Your task to perform on an android device: open device folders in google photos Image 0: 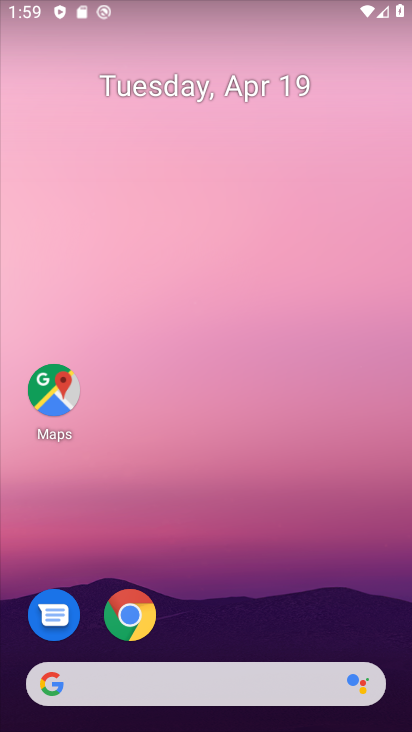
Step 0: drag from (182, 581) to (219, 164)
Your task to perform on an android device: open device folders in google photos Image 1: 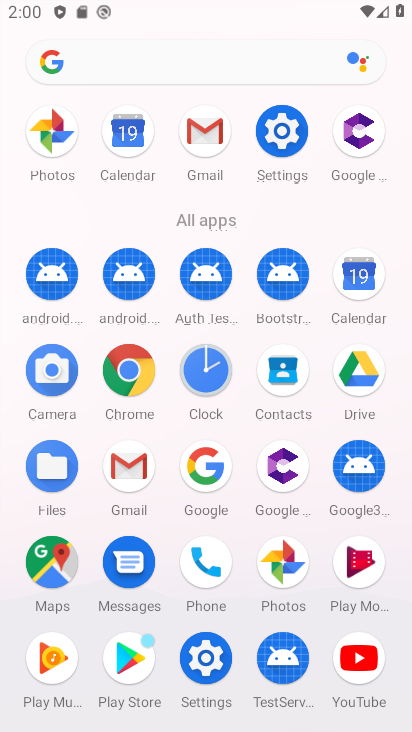
Step 1: click (279, 564)
Your task to perform on an android device: open device folders in google photos Image 2: 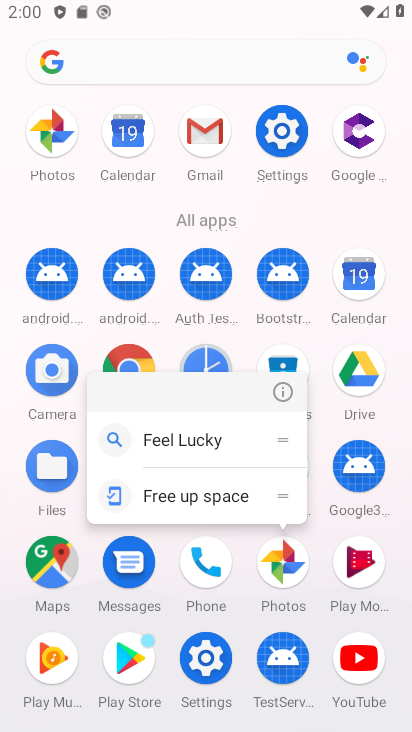
Step 2: click (287, 389)
Your task to perform on an android device: open device folders in google photos Image 3: 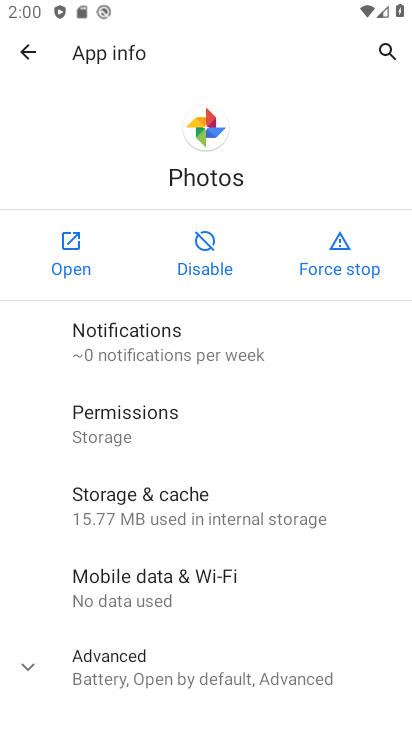
Step 3: click (81, 253)
Your task to perform on an android device: open device folders in google photos Image 4: 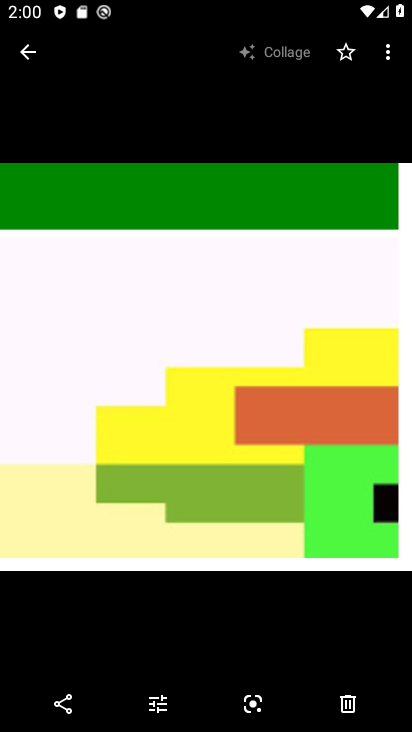
Step 4: click (32, 51)
Your task to perform on an android device: open device folders in google photos Image 5: 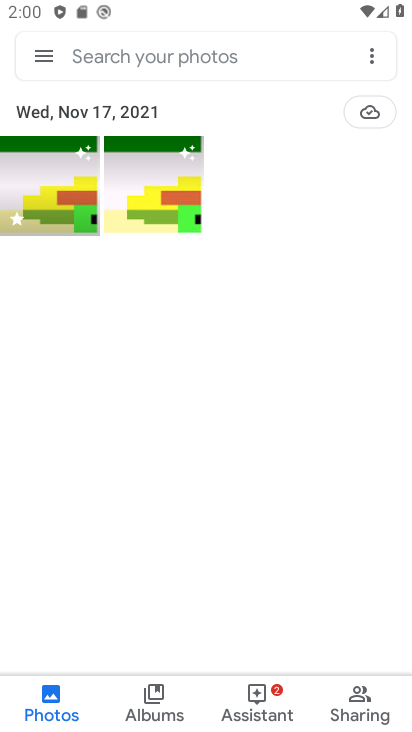
Step 5: click (43, 41)
Your task to perform on an android device: open device folders in google photos Image 6: 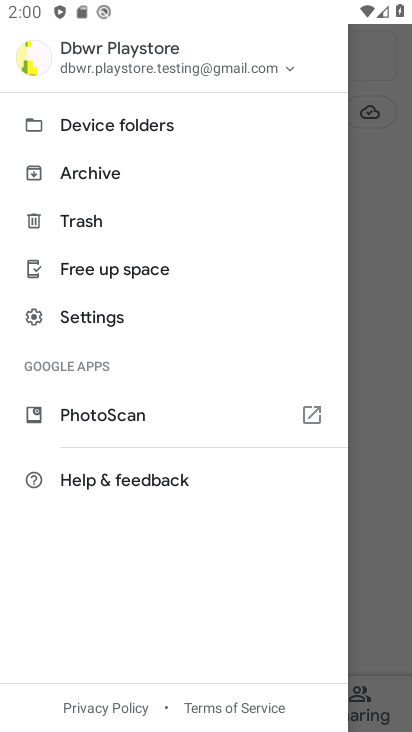
Step 6: click (177, 133)
Your task to perform on an android device: open device folders in google photos Image 7: 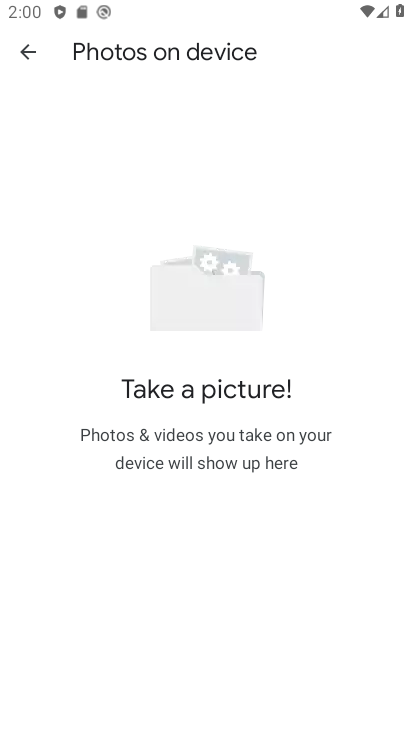
Step 7: task complete